Your task to perform on an android device: Play the new Beyonce video on YouTube Image 0: 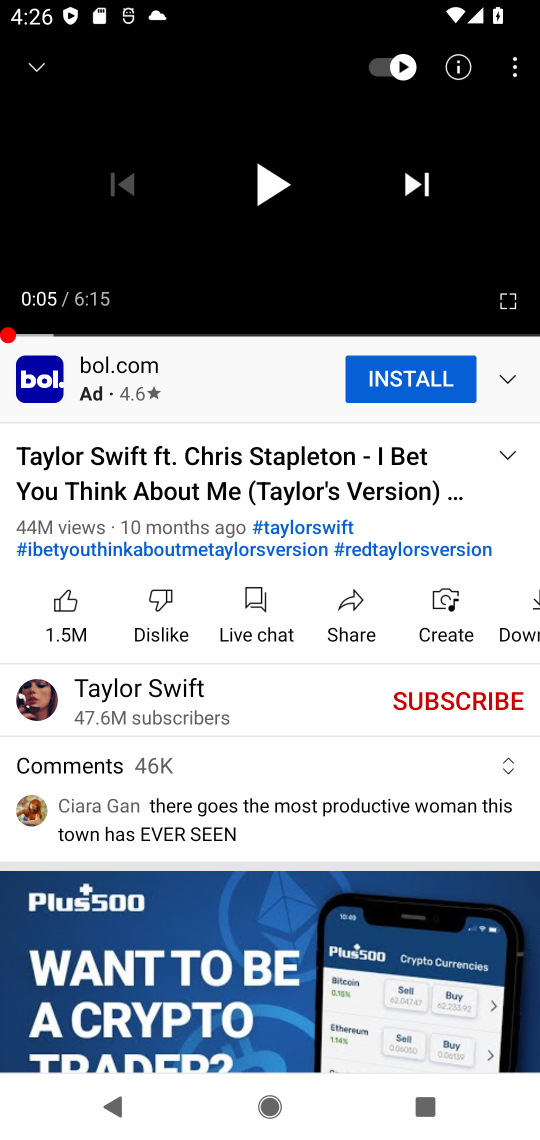
Step 0: press home button
Your task to perform on an android device: Play the new Beyonce video on YouTube Image 1: 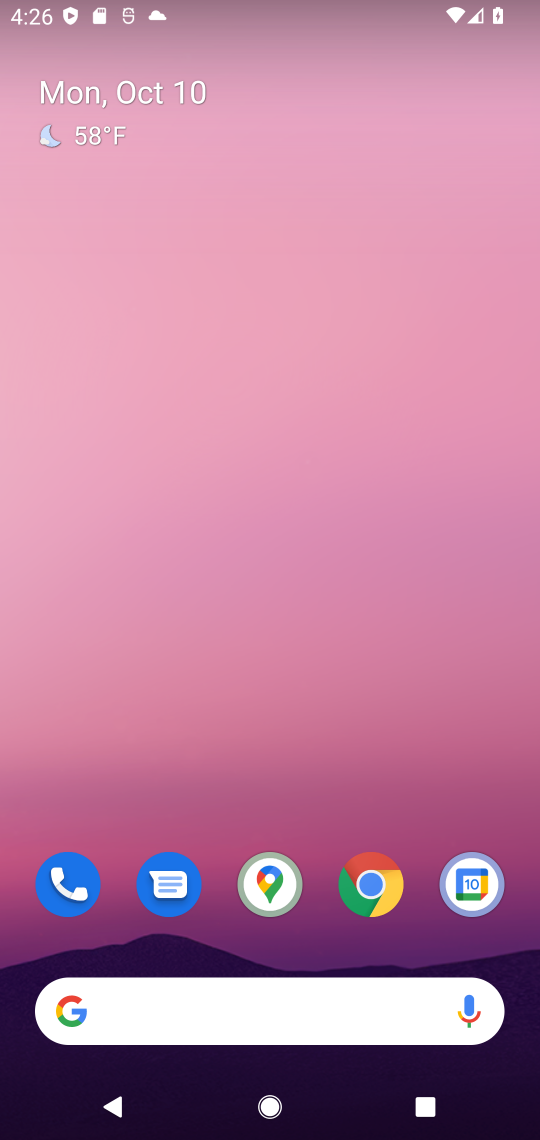
Step 1: drag from (503, 941) to (387, 33)
Your task to perform on an android device: Play the new Beyonce video on YouTube Image 2: 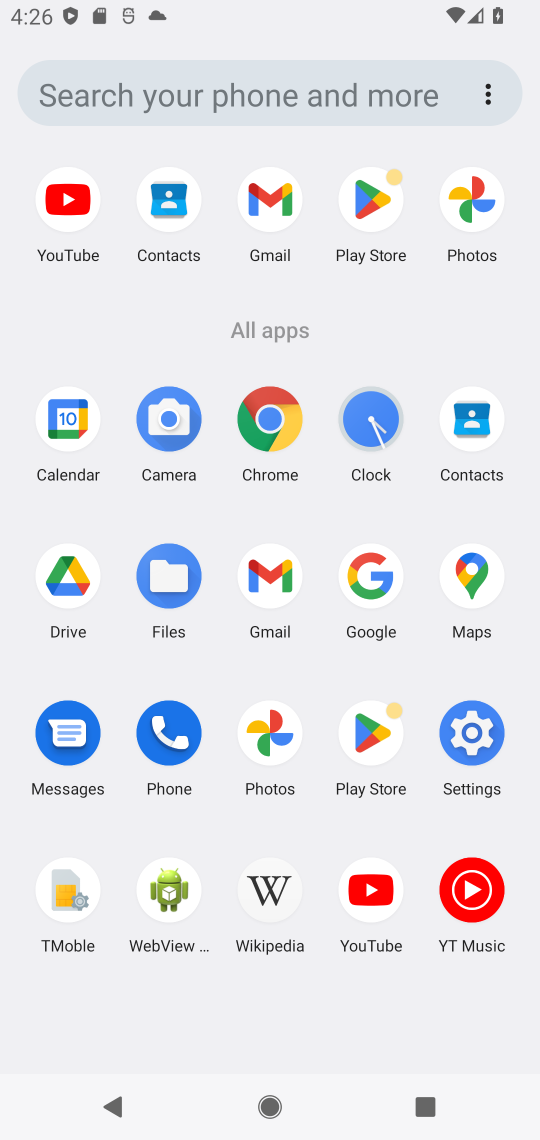
Step 2: click (74, 192)
Your task to perform on an android device: Play the new Beyonce video on YouTube Image 3: 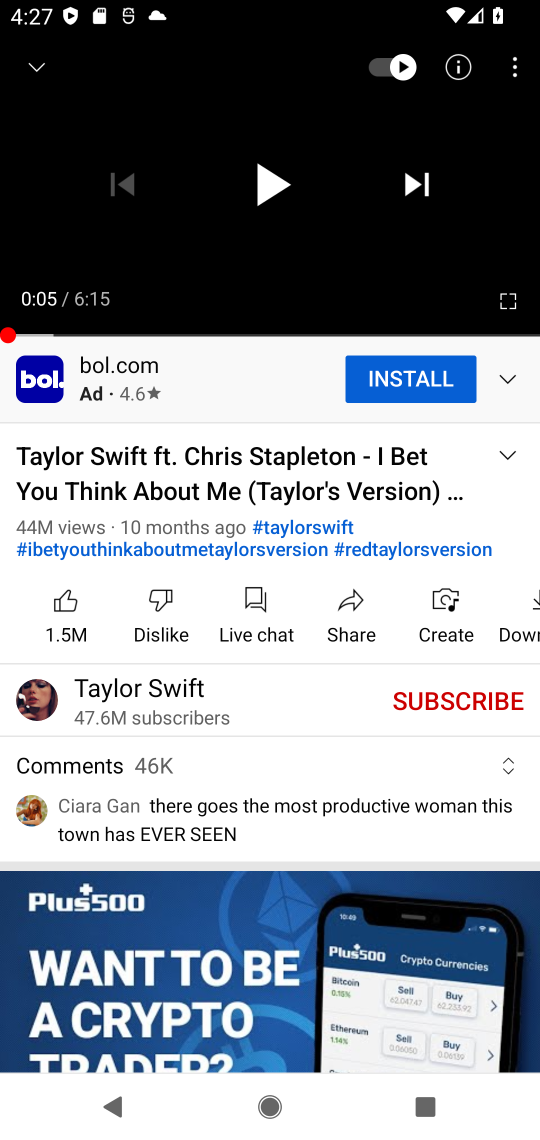
Step 3: click (36, 71)
Your task to perform on an android device: Play the new Beyonce video on YouTube Image 4: 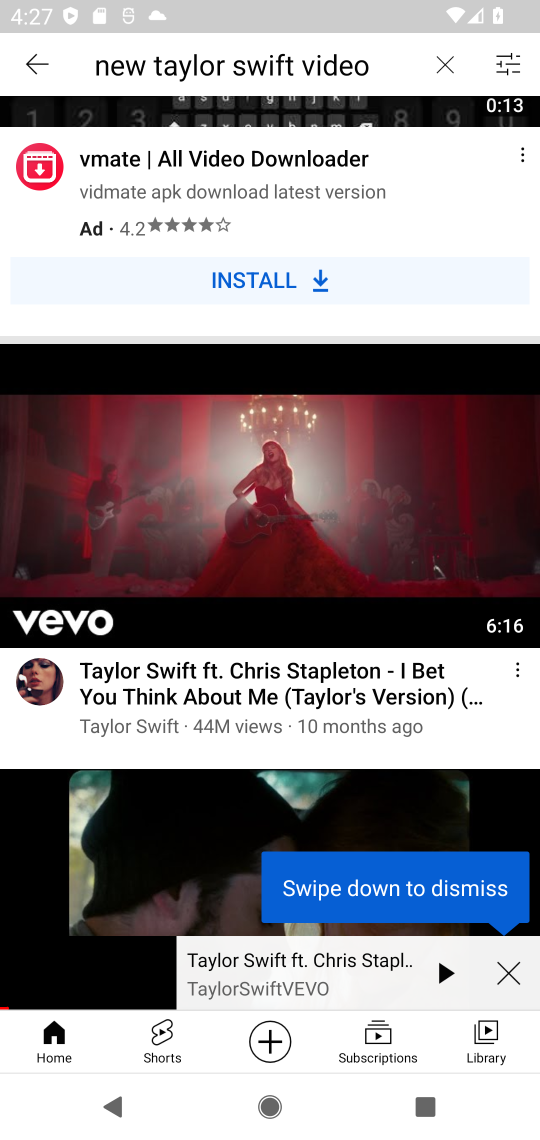
Step 4: click (440, 51)
Your task to perform on an android device: Play the new Beyonce video on YouTube Image 5: 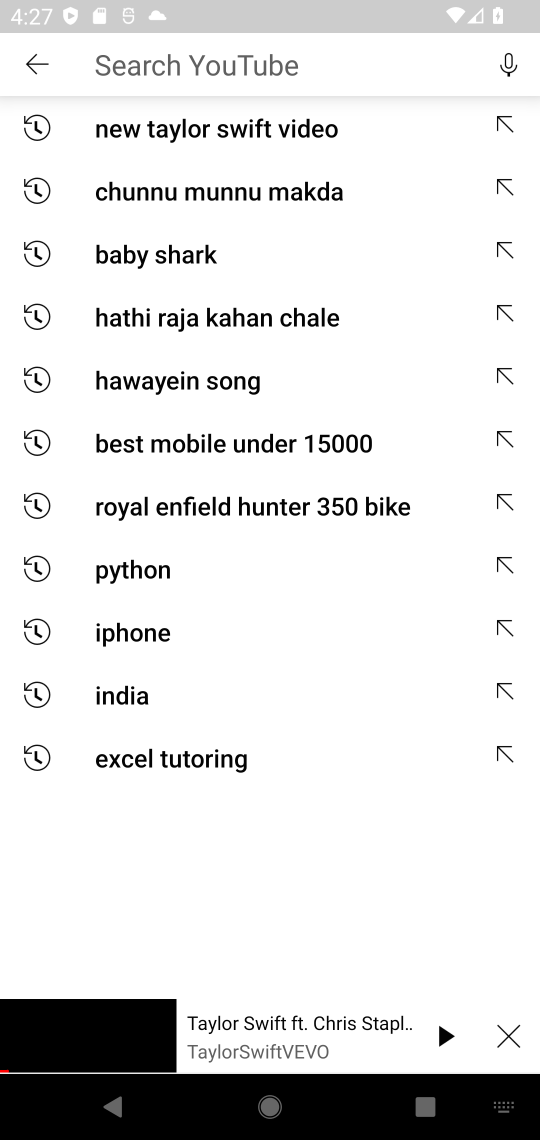
Step 5: type " new Beyonce video"
Your task to perform on an android device: Play the new Beyonce video on YouTube Image 6: 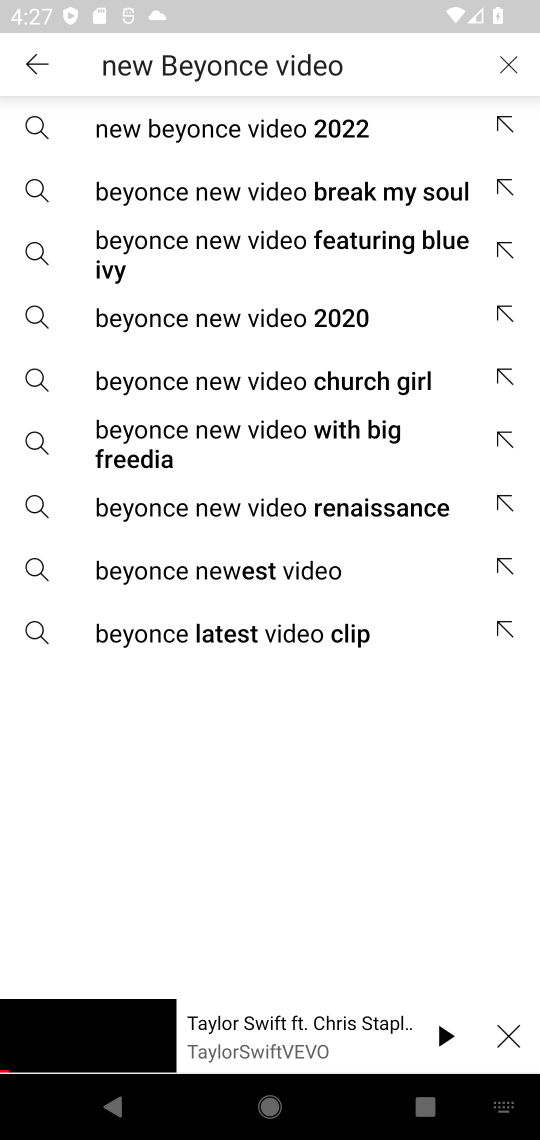
Step 6: click (280, 136)
Your task to perform on an android device: Play the new Beyonce video on YouTube Image 7: 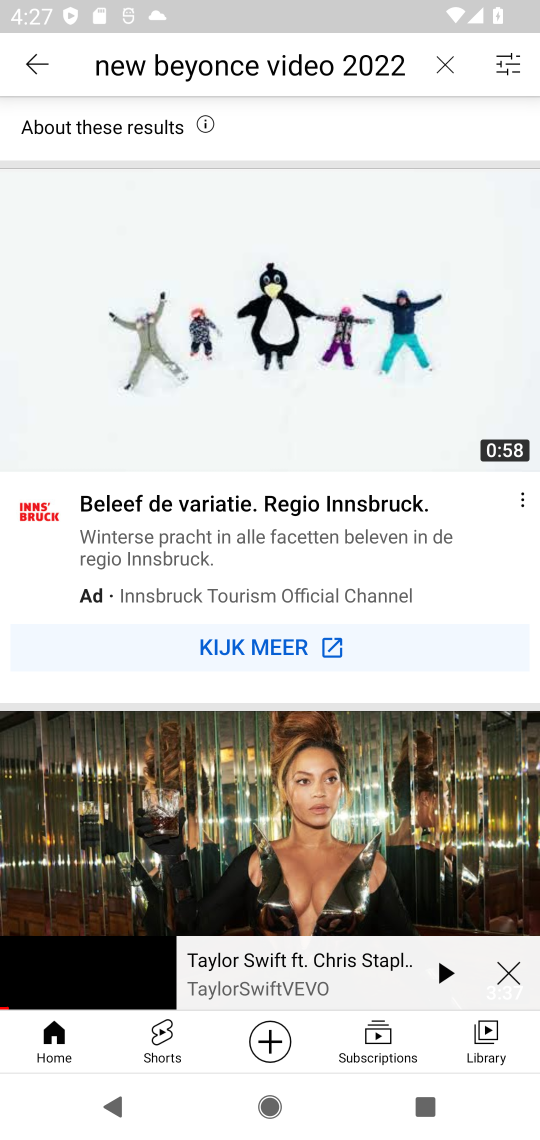
Step 7: click (504, 962)
Your task to perform on an android device: Play the new Beyonce video on YouTube Image 8: 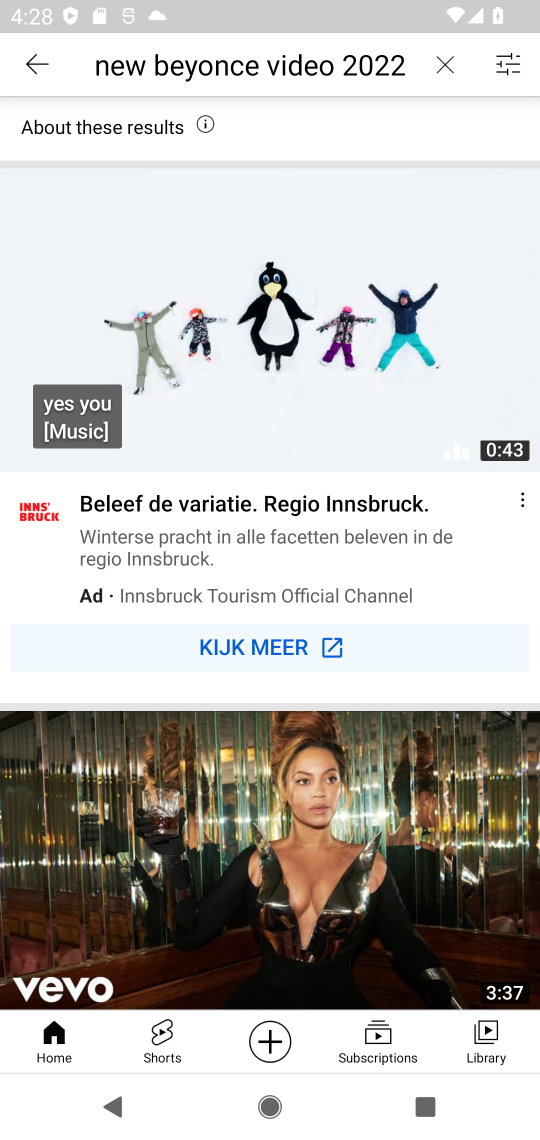
Step 8: drag from (366, 883) to (335, 227)
Your task to perform on an android device: Play the new Beyonce video on YouTube Image 9: 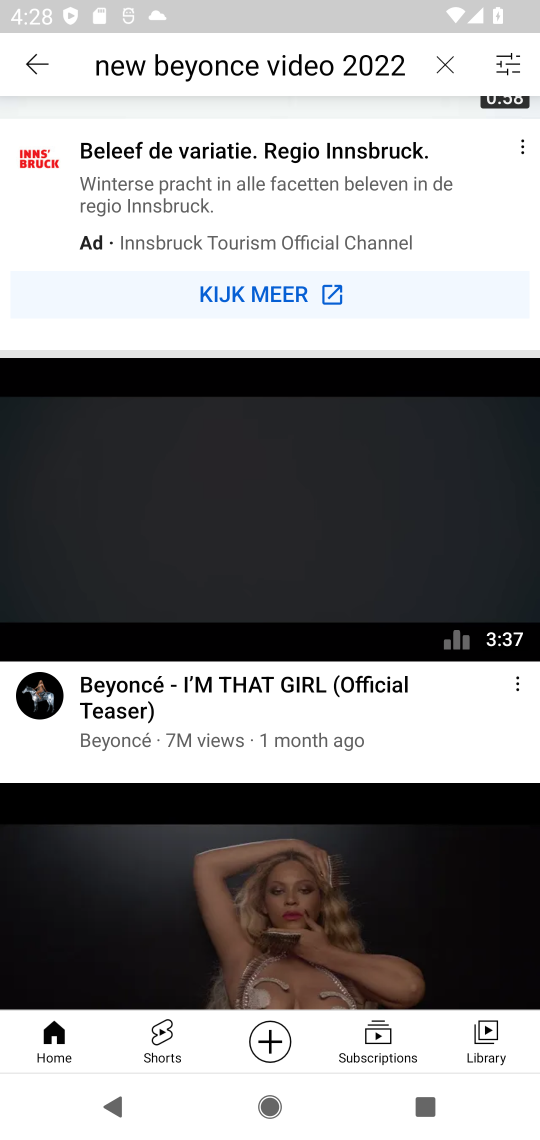
Step 9: click (264, 547)
Your task to perform on an android device: Play the new Beyonce video on YouTube Image 10: 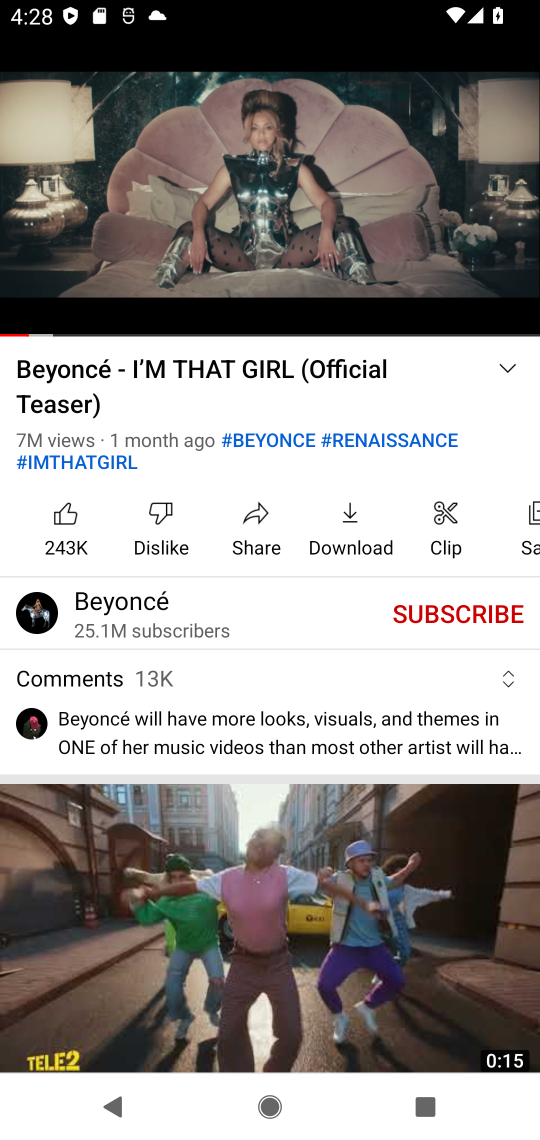
Step 10: click (262, 170)
Your task to perform on an android device: Play the new Beyonce video on YouTube Image 11: 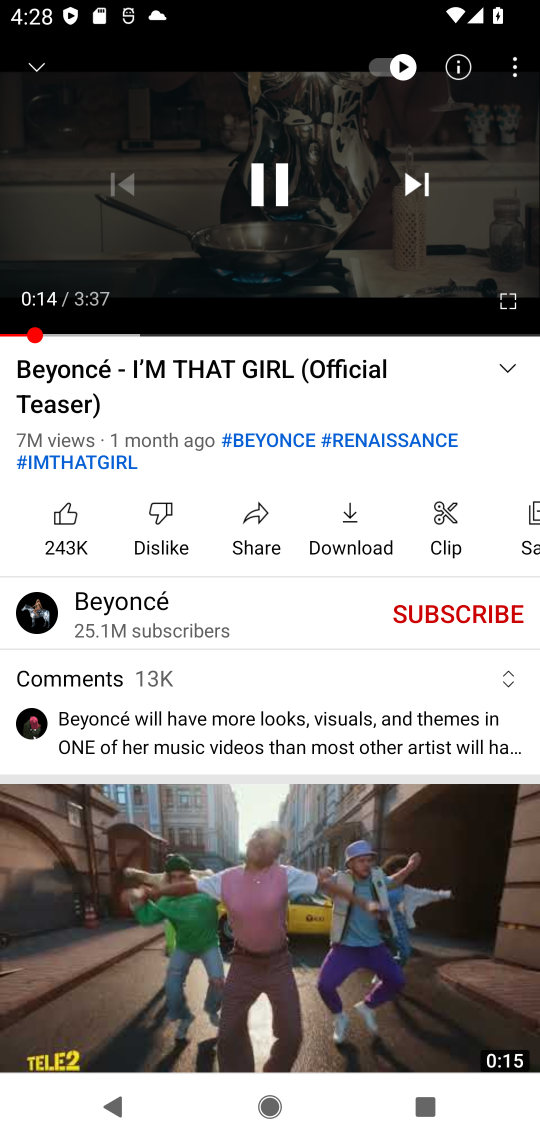
Step 11: click (278, 174)
Your task to perform on an android device: Play the new Beyonce video on YouTube Image 12: 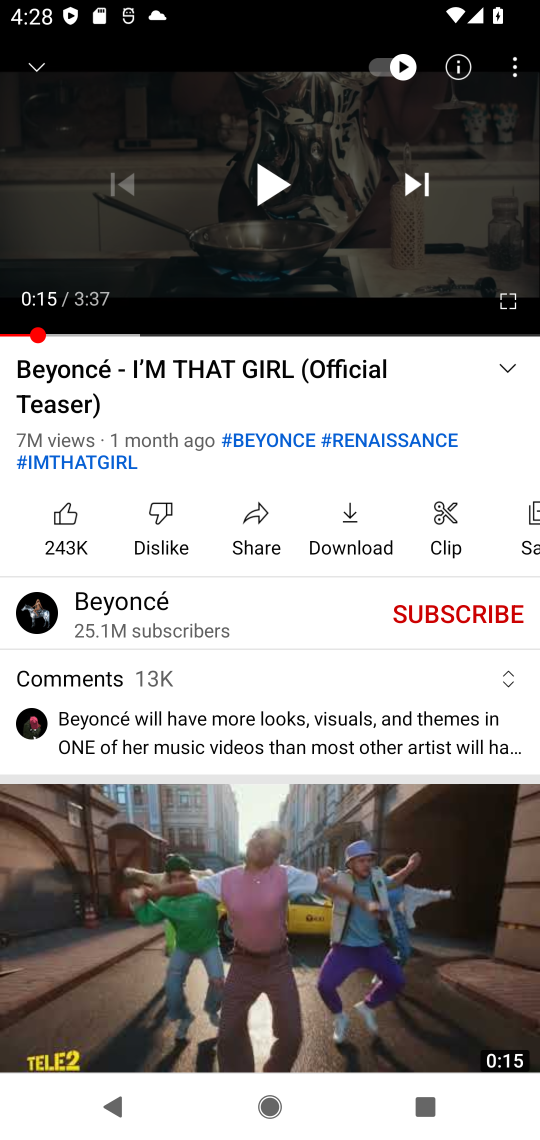
Step 12: task complete